Your task to perform on an android device: Open network settings Image 0: 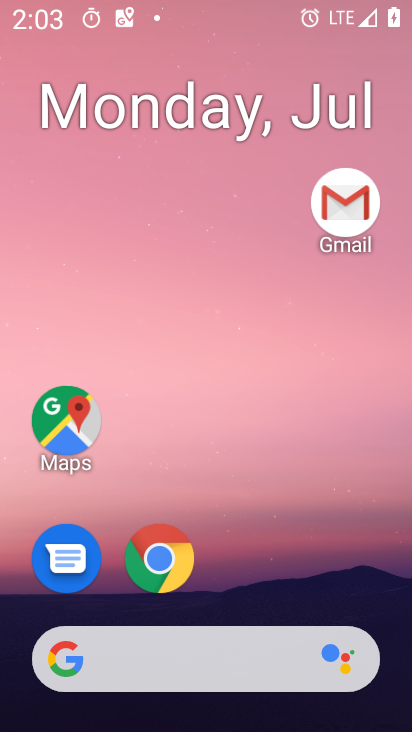
Step 0: drag from (323, 534) to (357, 84)
Your task to perform on an android device: Open network settings Image 1: 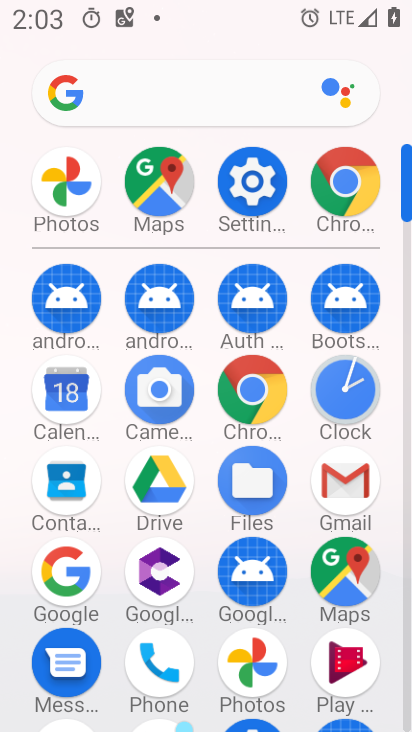
Step 1: click (257, 181)
Your task to perform on an android device: Open network settings Image 2: 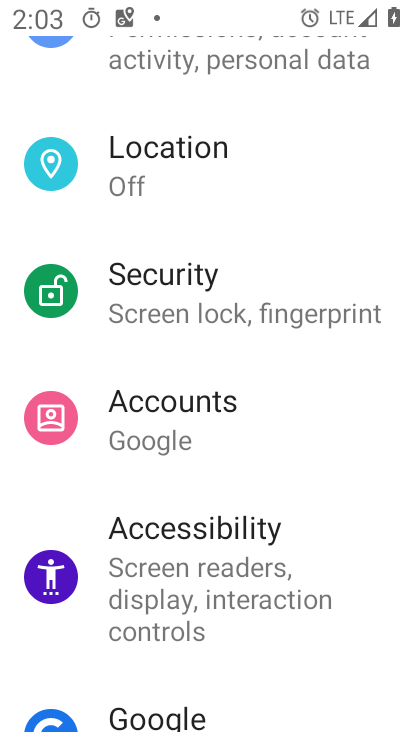
Step 2: drag from (315, 489) to (349, 298)
Your task to perform on an android device: Open network settings Image 3: 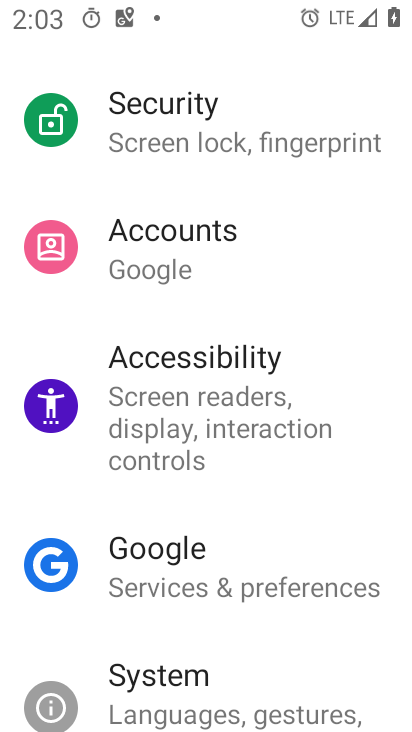
Step 3: drag from (329, 504) to (343, 397)
Your task to perform on an android device: Open network settings Image 4: 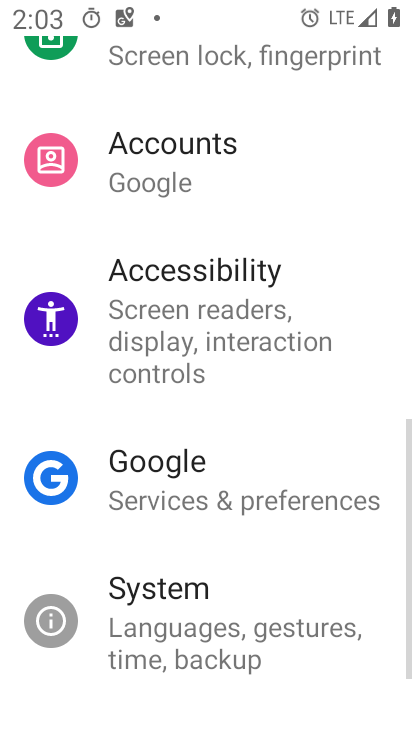
Step 4: drag from (334, 568) to (344, 419)
Your task to perform on an android device: Open network settings Image 5: 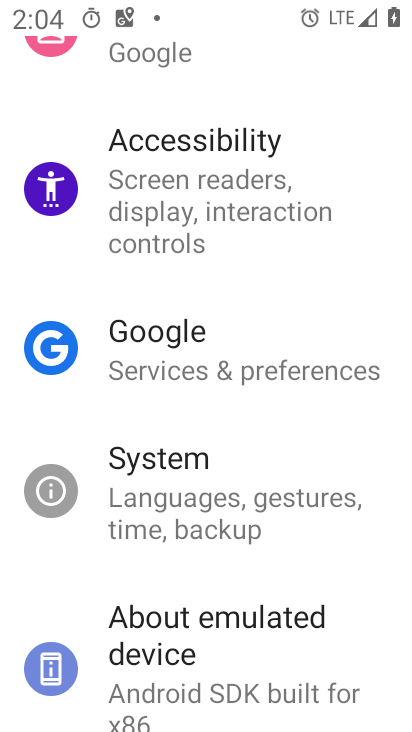
Step 5: drag from (336, 563) to (347, 475)
Your task to perform on an android device: Open network settings Image 6: 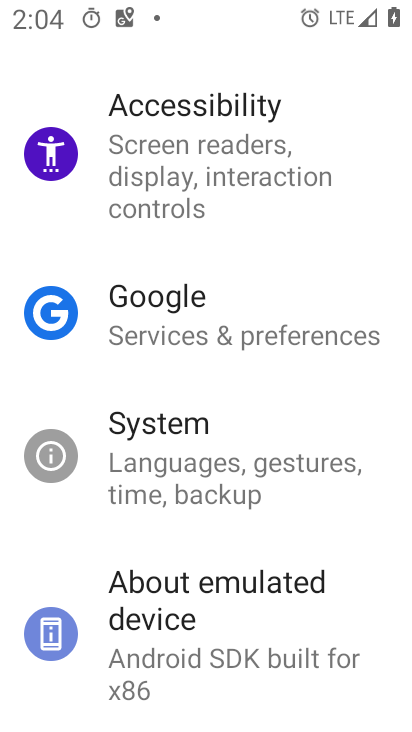
Step 6: drag from (362, 374) to (360, 523)
Your task to perform on an android device: Open network settings Image 7: 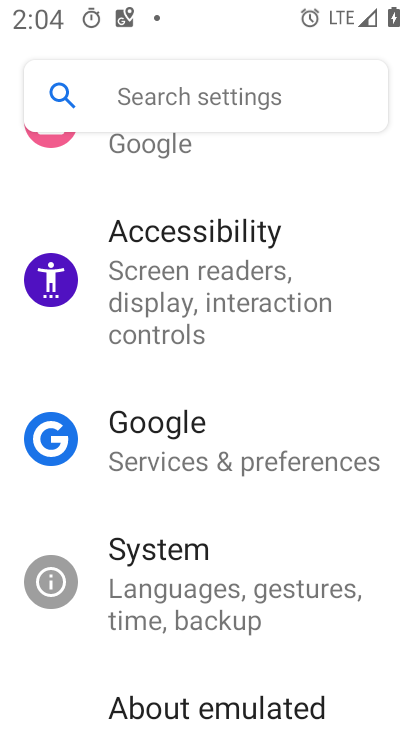
Step 7: drag from (355, 294) to (346, 441)
Your task to perform on an android device: Open network settings Image 8: 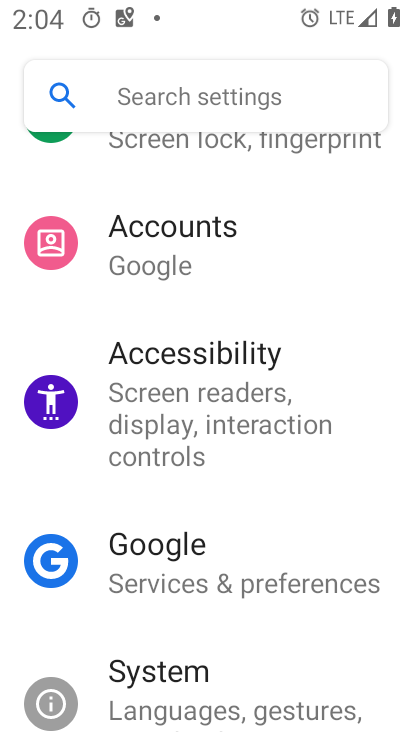
Step 8: drag from (341, 282) to (352, 402)
Your task to perform on an android device: Open network settings Image 9: 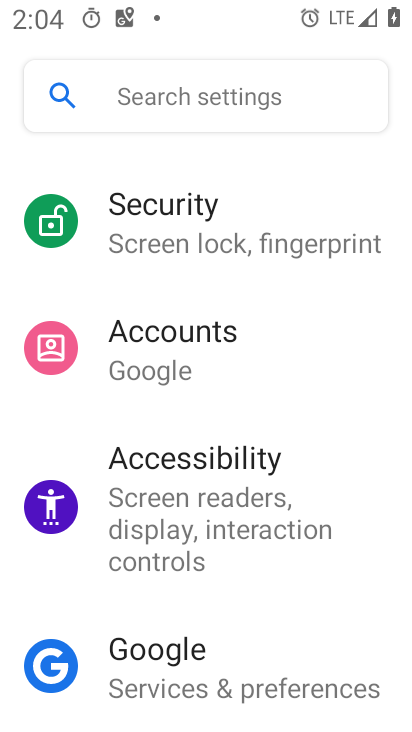
Step 9: drag from (350, 300) to (346, 468)
Your task to perform on an android device: Open network settings Image 10: 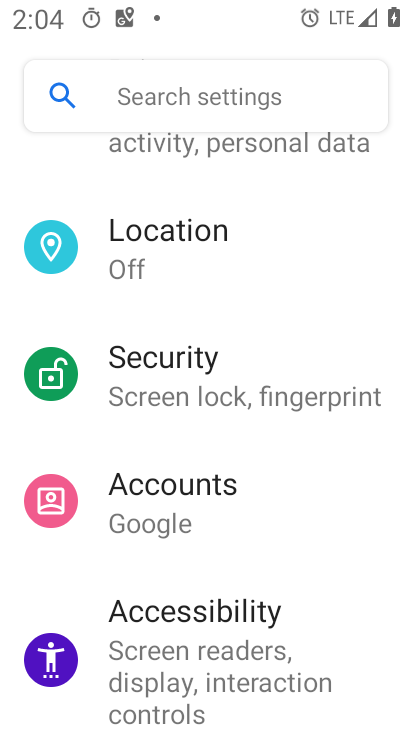
Step 10: drag from (338, 269) to (338, 384)
Your task to perform on an android device: Open network settings Image 11: 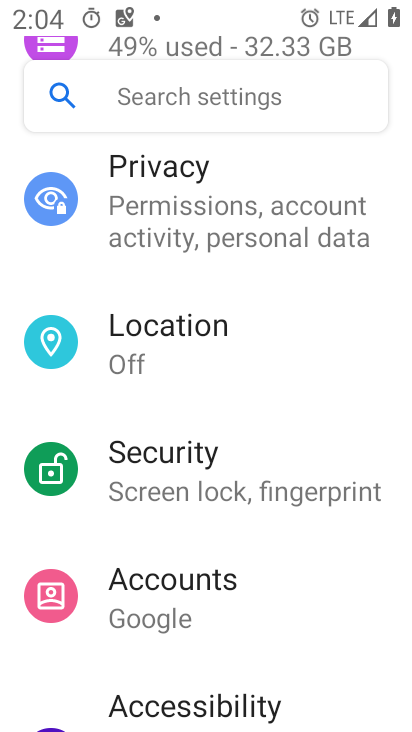
Step 11: drag from (338, 325) to (341, 435)
Your task to perform on an android device: Open network settings Image 12: 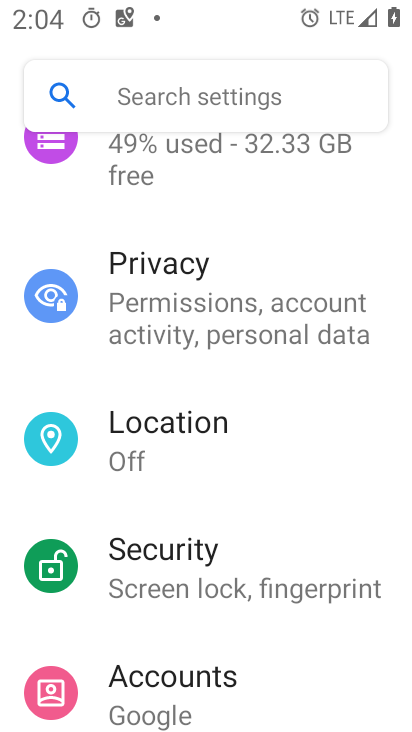
Step 12: drag from (346, 283) to (343, 436)
Your task to perform on an android device: Open network settings Image 13: 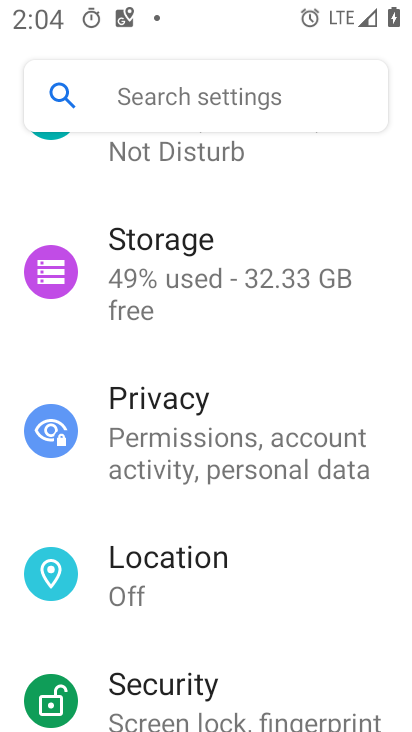
Step 13: drag from (354, 220) to (346, 423)
Your task to perform on an android device: Open network settings Image 14: 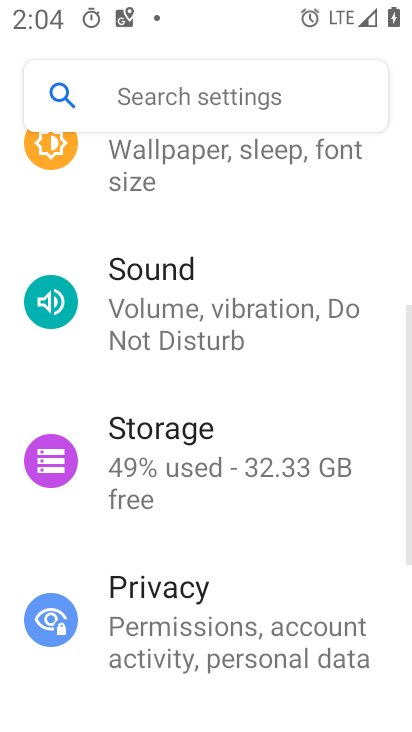
Step 14: drag from (346, 222) to (348, 389)
Your task to perform on an android device: Open network settings Image 15: 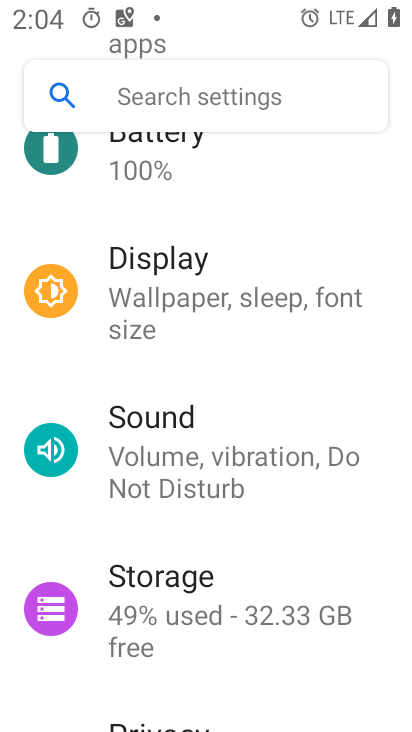
Step 15: drag from (338, 232) to (341, 365)
Your task to perform on an android device: Open network settings Image 16: 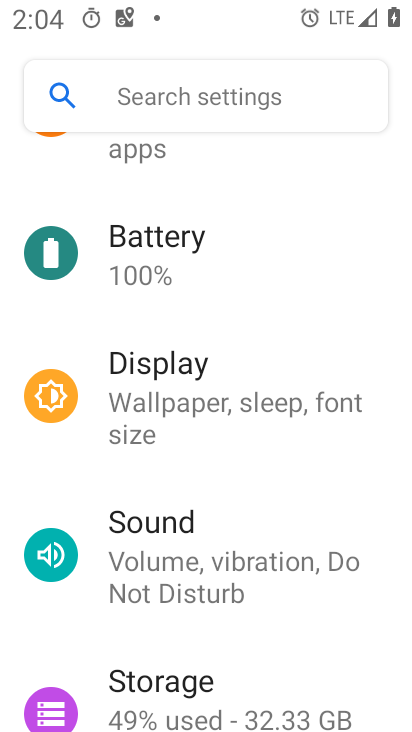
Step 16: drag from (352, 229) to (358, 406)
Your task to perform on an android device: Open network settings Image 17: 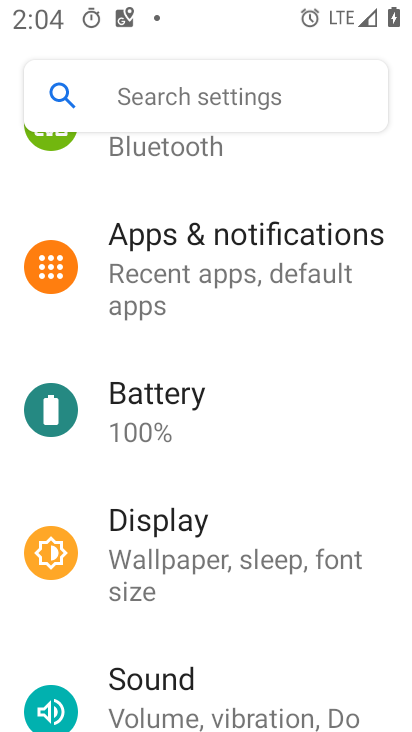
Step 17: drag from (343, 366) to (333, 489)
Your task to perform on an android device: Open network settings Image 18: 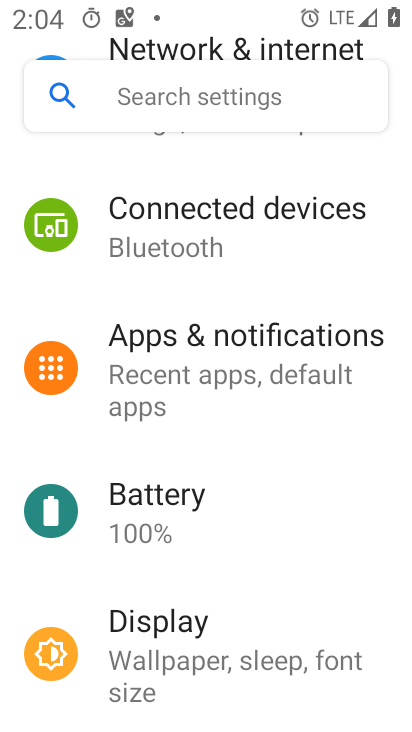
Step 18: drag from (322, 273) to (322, 442)
Your task to perform on an android device: Open network settings Image 19: 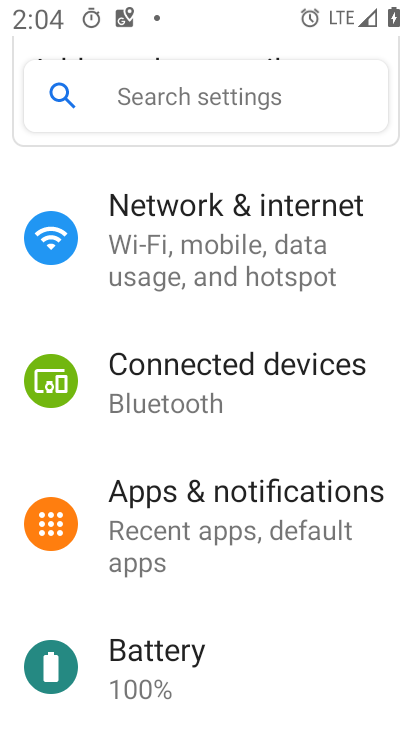
Step 19: click (299, 243)
Your task to perform on an android device: Open network settings Image 20: 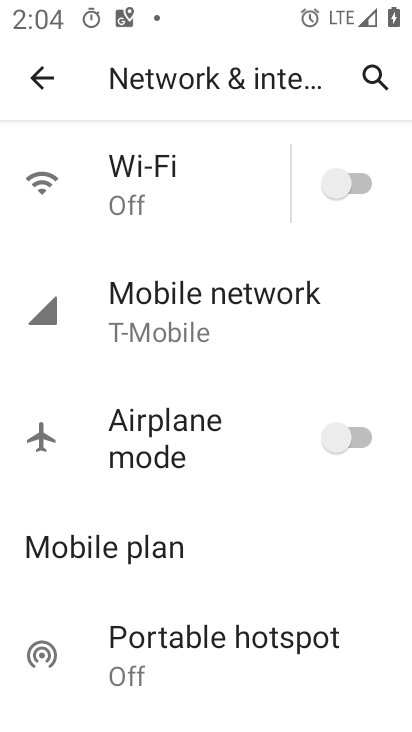
Step 20: task complete